Your task to perform on an android device: change notification settings in the gmail app Image 0: 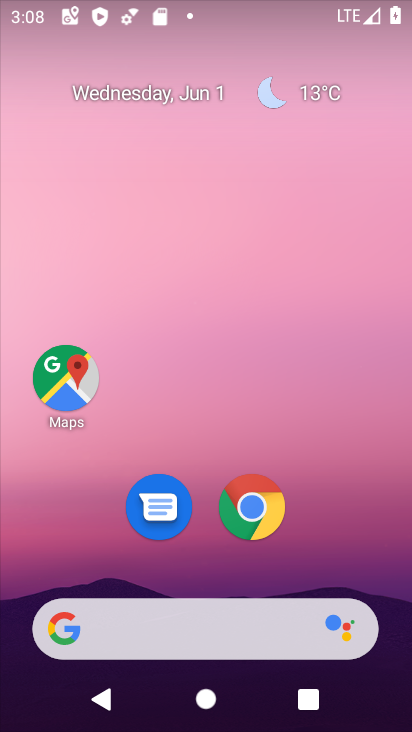
Step 0: drag from (332, 554) to (69, 129)
Your task to perform on an android device: change notification settings in the gmail app Image 1: 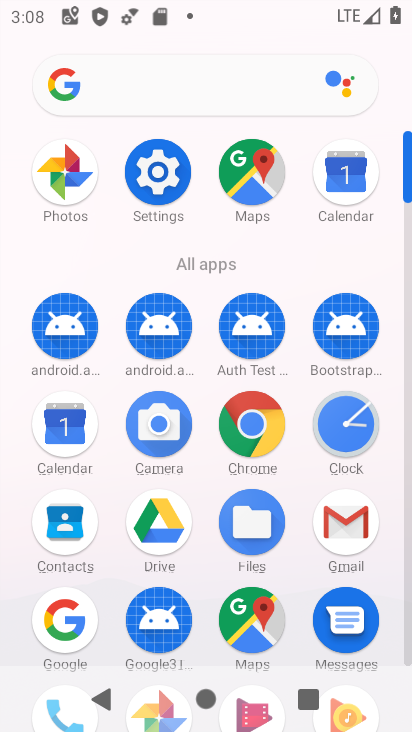
Step 1: click (360, 512)
Your task to perform on an android device: change notification settings in the gmail app Image 2: 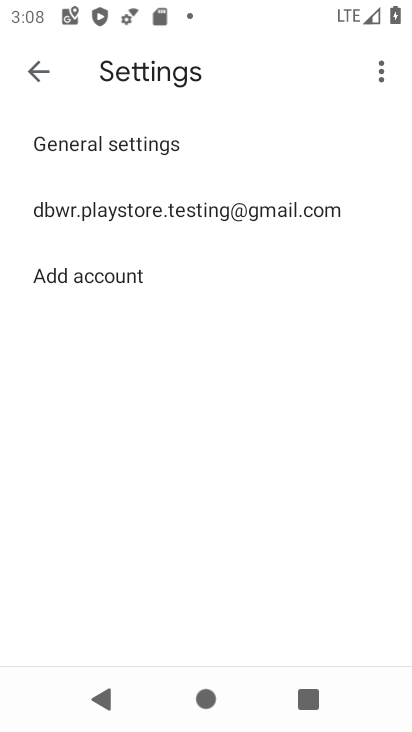
Step 2: click (229, 217)
Your task to perform on an android device: change notification settings in the gmail app Image 3: 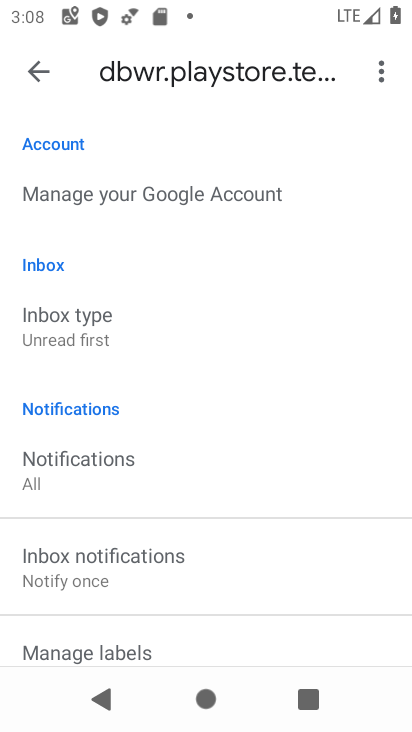
Step 3: drag from (204, 504) to (212, 225)
Your task to perform on an android device: change notification settings in the gmail app Image 4: 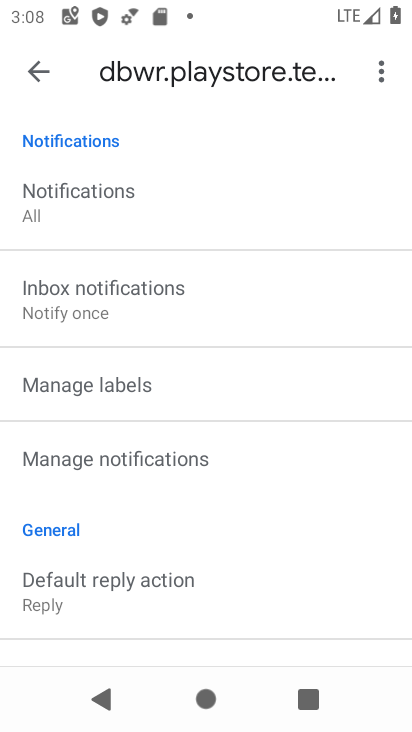
Step 4: click (177, 452)
Your task to perform on an android device: change notification settings in the gmail app Image 5: 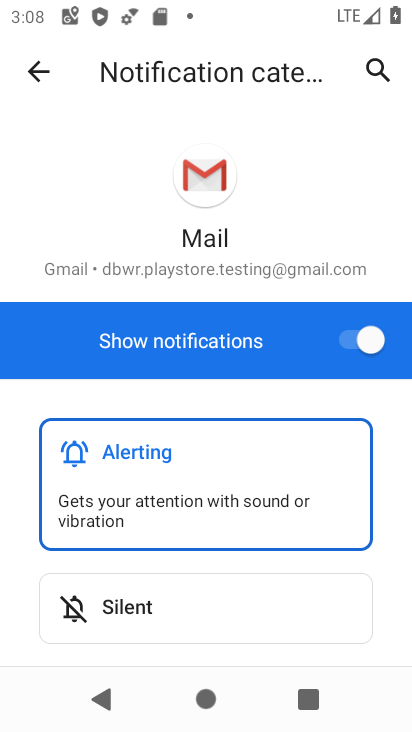
Step 5: click (359, 342)
Your task to perform on an android device: change notification settings in the gmail app Image 6: 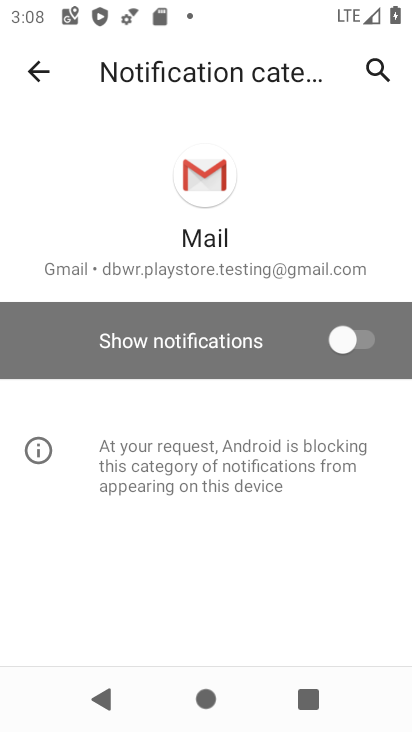
Step 6: task complete